Your task to perform on an android device: Open the map Image 0: 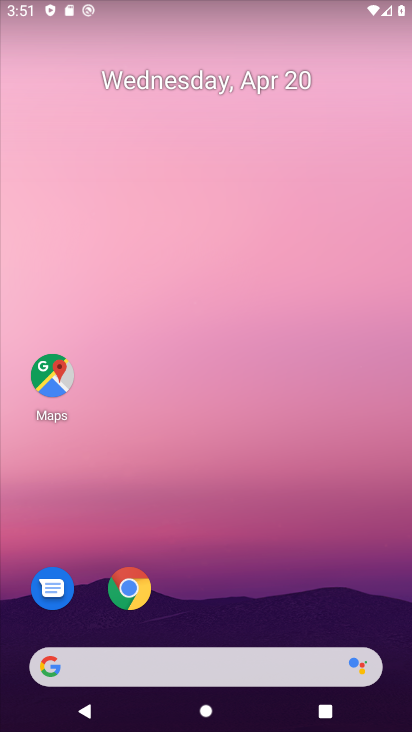
Step 0: click (48, 378)
Your task to perform on an android device: Open the map Image 1: 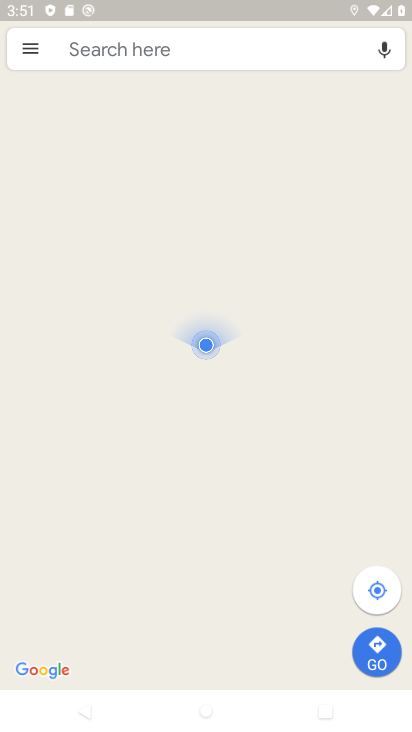
Step 1: task complete